Your task to perform on an android device: set the timer Image 0: 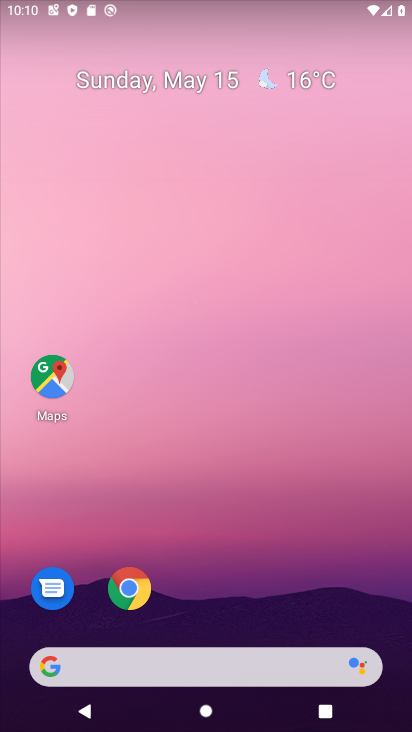
Step 0: drag from (208, 410) to (247, 16)
Your task to perform on an android device: set the timer Image 1: 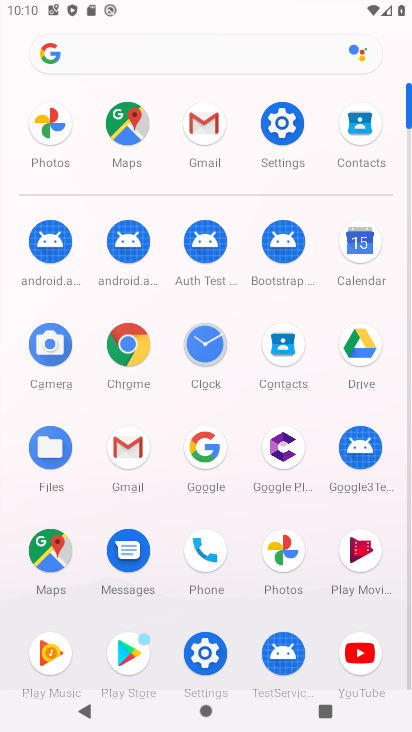
Step 1: click (206, 360)
Your task to perform on an android device: set the timer Image 2: 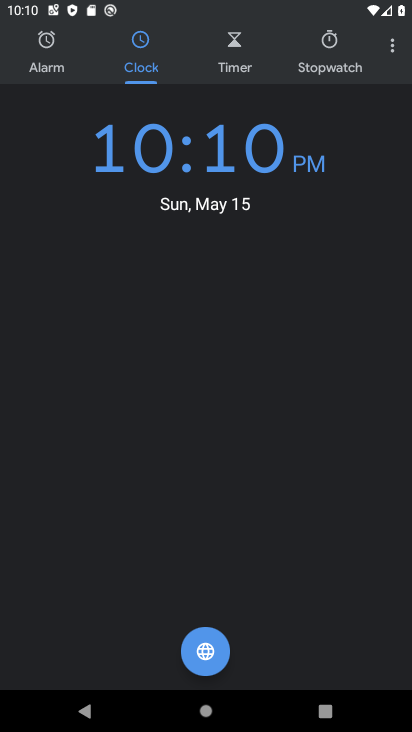
Step 2: click (236, 50)
Your task to perform on an android device: set the timer Image 3: 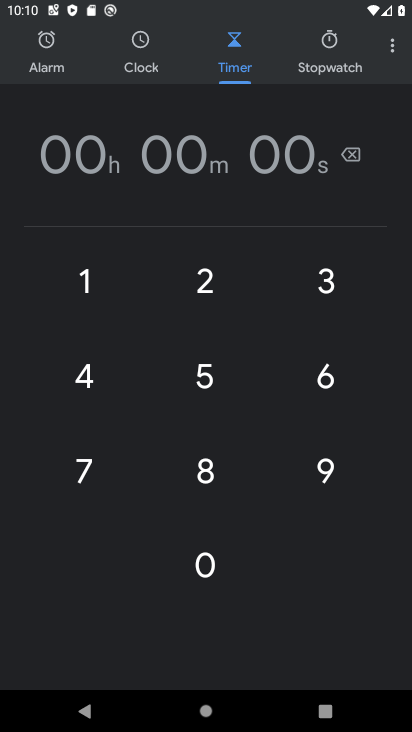
Step 3: click (98, 287)
Your task to perform on an android device: set the timer Image 4: 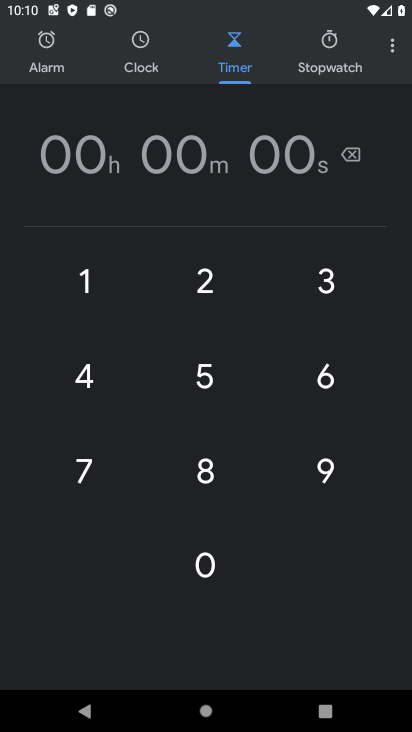
Step 4: click (98, 287)
Your task to perform on an android device: set the timer Image 5: 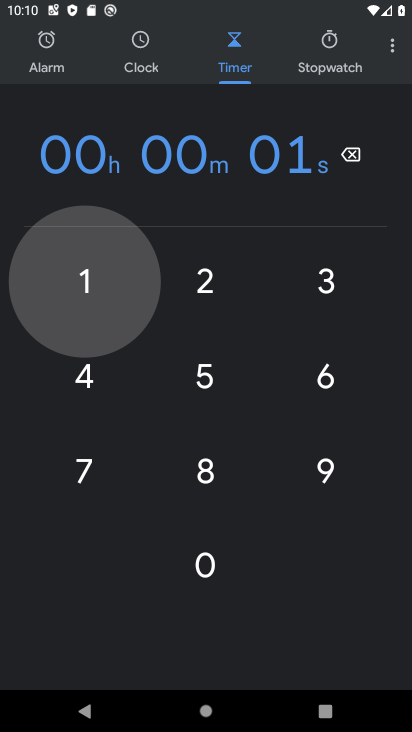
Step 5: click (98, 287)
Your task to perform on an android device: set the timer Image 6: 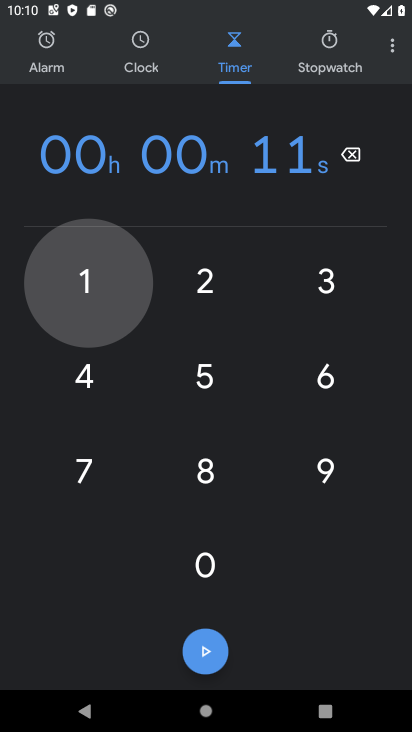
Step 6: click (98, 287)
Your task to perform on an android device: set the timer Image 7: 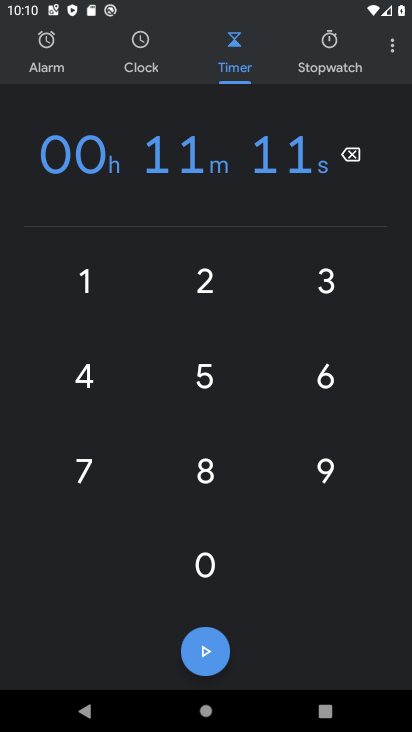
Step 7: click (98, 287)
Your task to perform on an android device: set the timer Image 8: 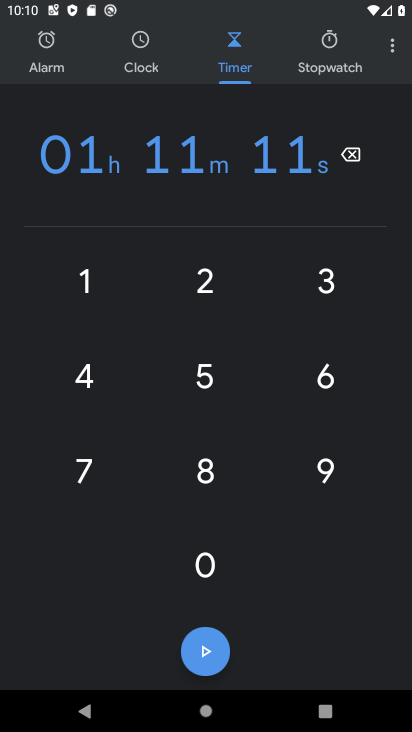
Step 8: task complete